Your task to perform on an android device: Go to internet settings Image 0: 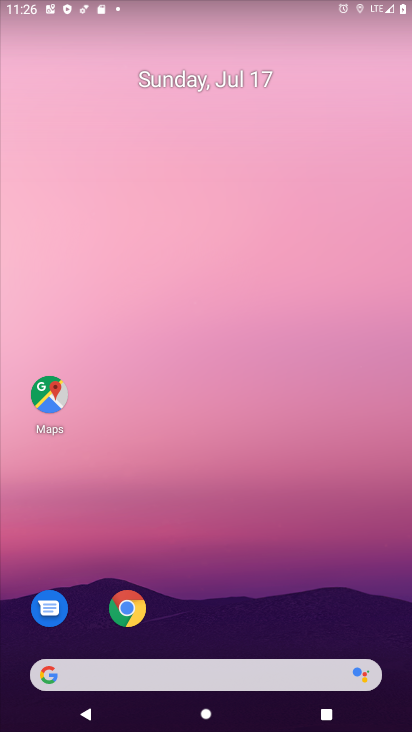
Step 0: drag from (177, 675) to (190, 53)
Your task to perform on an android device: Go to internet settings Image 1: 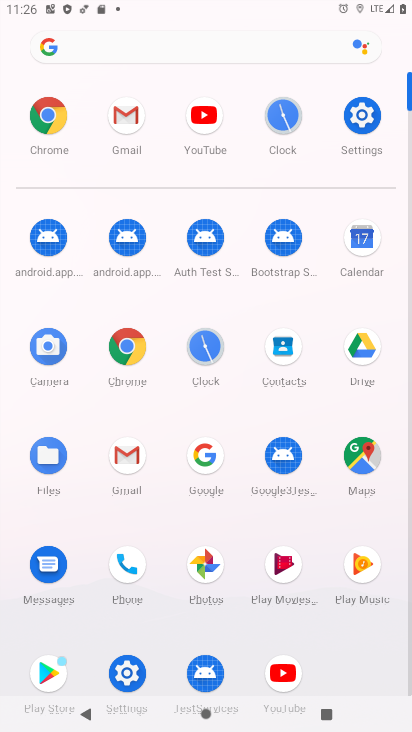
Step 1: click (358, 130)
Your task to perform on an android device: Go to internet settings Image 2: 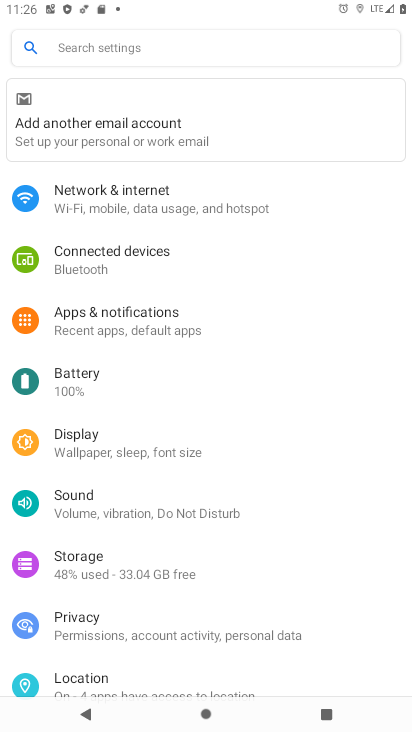
Step 2: drag from (333, 186) to (260, 559)
Your task to perform on an android device: Go to internet settings Image 3: 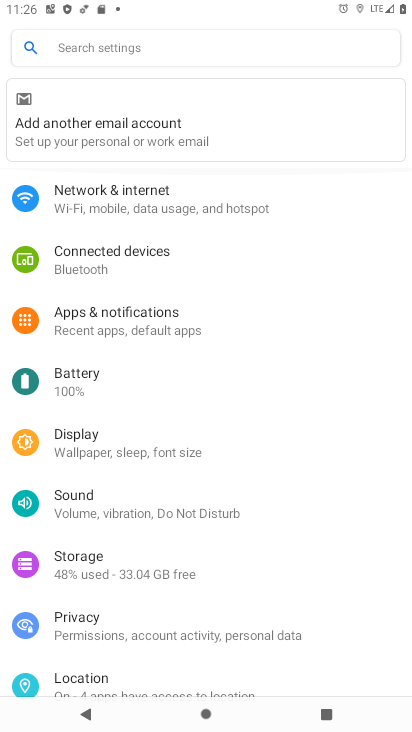
Step 3: click (166, 205)
Your task to perform on an android device: Go to internet settings Image 4: 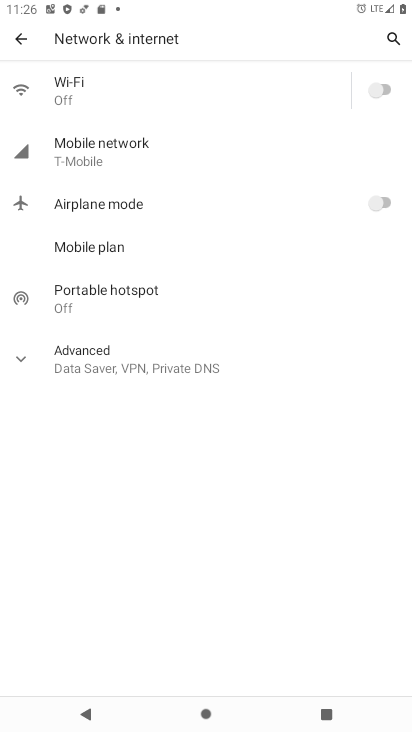
Step 4: click (122, 146)
Your task to perform on an android device: Go to internet settings Image 5: 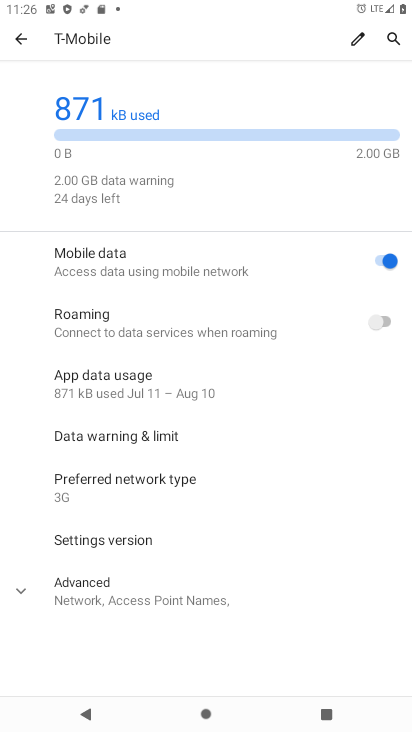
Step 5: task complete